Your task to perform on an android device: Google the capital of Ecuador Image 0: 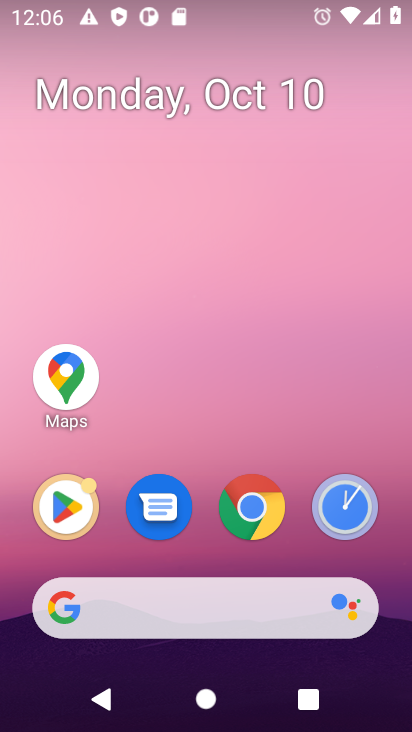
Step 0: click (247, 611)
Your task to perform on an android device: Google the capital of Ecuador Image 1: 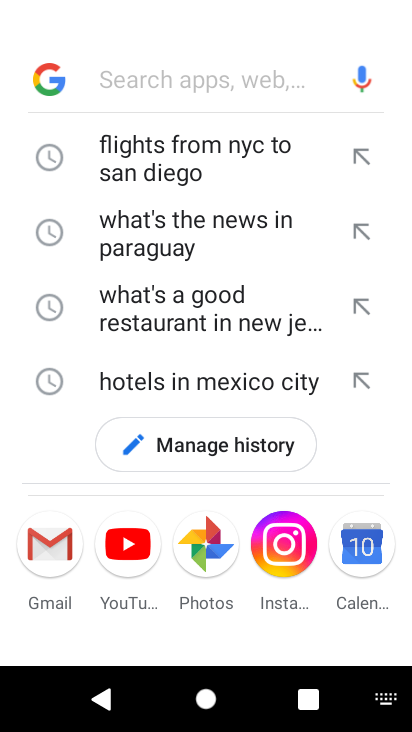
Step 1: type "Google the capital of Ecuador"
Your task to perform on an android device: Google the capital of Ecuador Image 2: 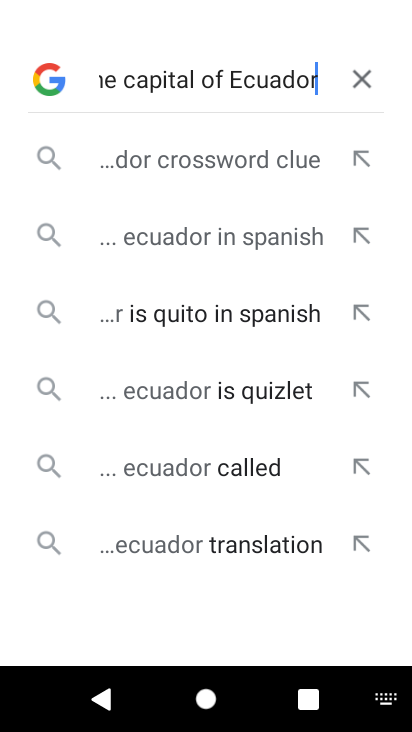
Step 2: press enter
Your task to perform on an android device: Google the capital of Ecuador Image 3: 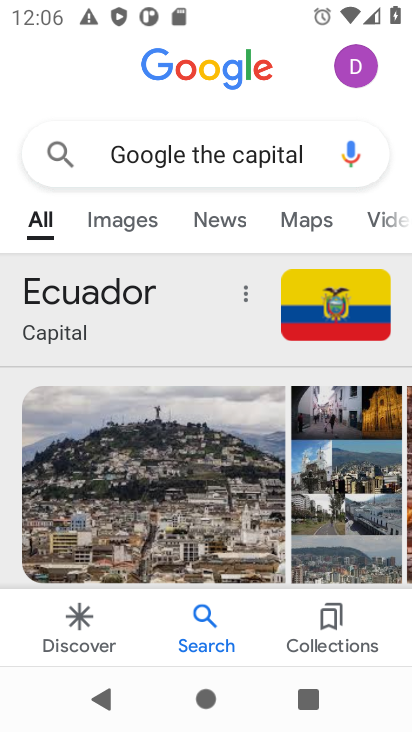
Step 3: task complete